Your task to perform on an android device: Add "beats solo 3" to the cart on costco Image 0: 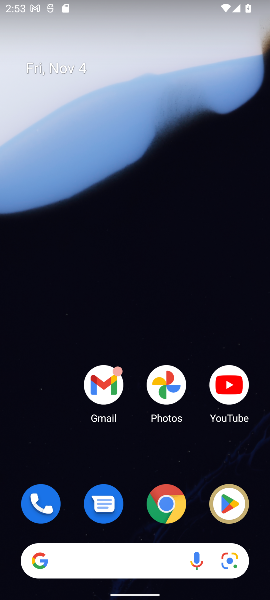
Step 0: click (165, 508)
Your task to perform on an android device: Add "beats solo 3" to the cart on costco Image 1: 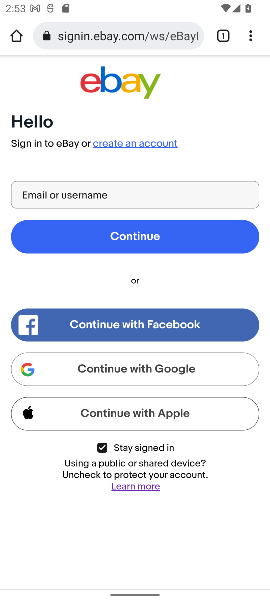
Step 1: click (117, 42)
Your task to perform on an android device: Add "beats solo 3" to the cart on costco Image 2: 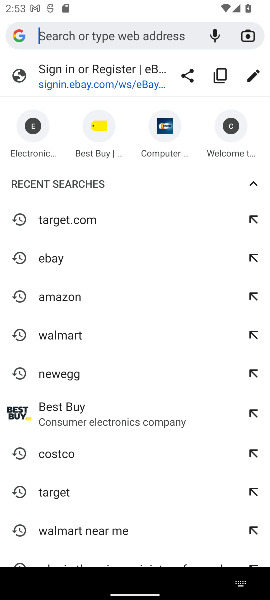
Step 2: click (63, 453)
Your task to perform on an android device: Add "beats solo 3" to the cart on costco Image 3: 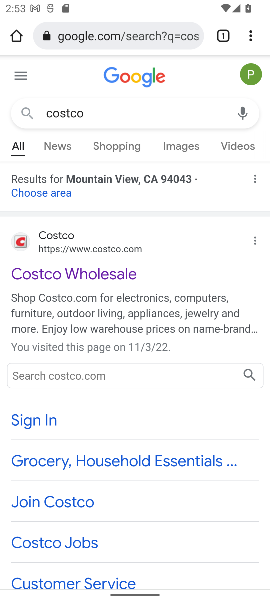
Step 3: click (77, 284)
Your task to perform on an android device: Add "beats solo 3" to the cart on costco Image 4: 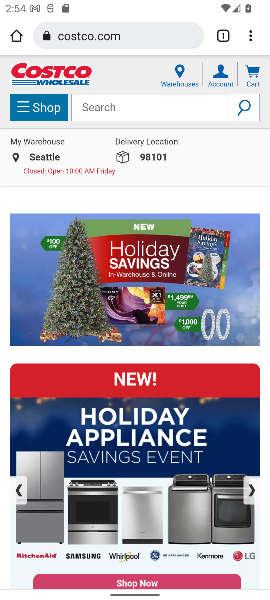
Step 4: click (120, 108)
Your task to perform on an android device: Add "beats solo 3" to the cart on costco Image 5: 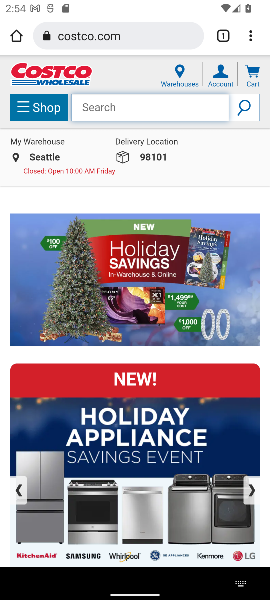
Step 5: type "beats solo 3"
Your task to perform on an android device: Add "beats solo 3" to the cart on costco Image 6: 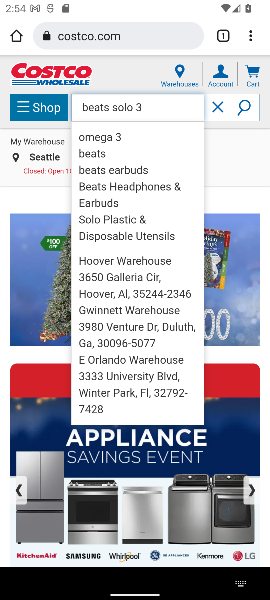
Step 6: click (246, 109)
Your task to perform on an android device: Add "beats solo 3" to the cart on costco Image 7: 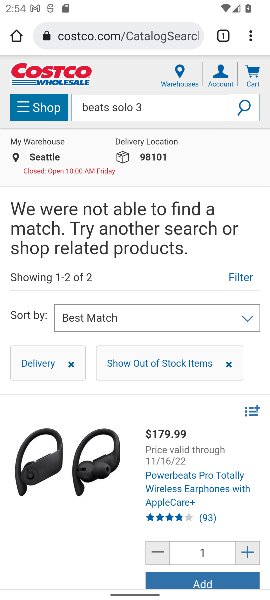
Step 7: task complete